Your task to perform on an android device: Open Google Chrome and open the bookmarks view Image 0: 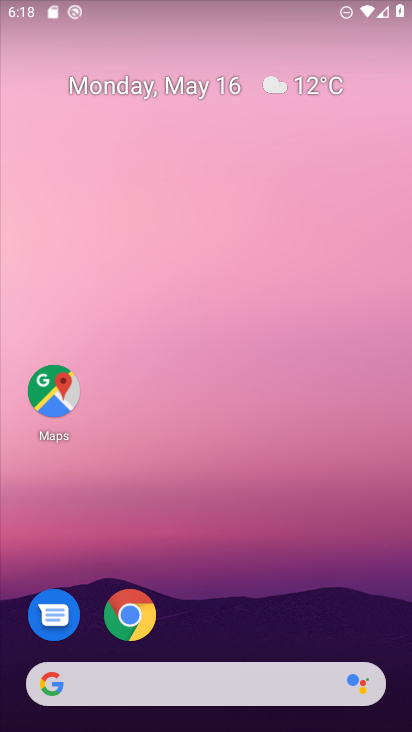
Step 0: click (129, 618)
Your task to perform on an android device: Open Google Chrome and open the bookmarks view Image 1: 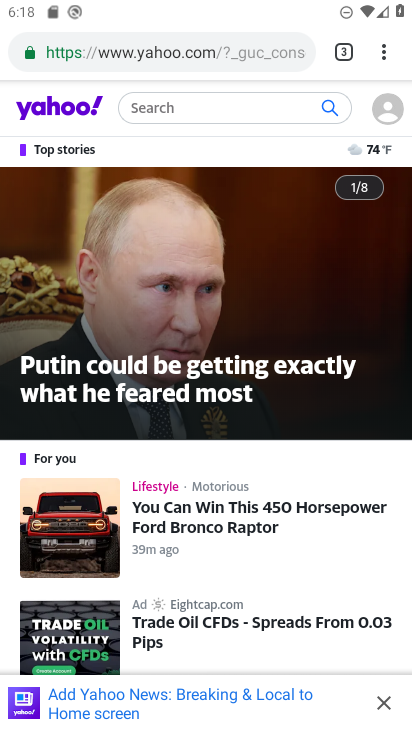
Step 1: click (384, 50)
Your task to perform on an android device: Open Google Chrome and open the bookmarks view Image 2: 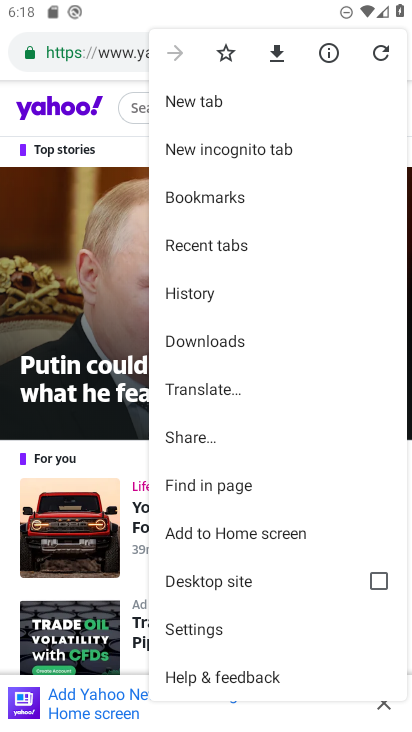
Step 2: click (224, 200)
Your task to perform on an android device: Open Google Chrome and open the bookmarks view Image 3: 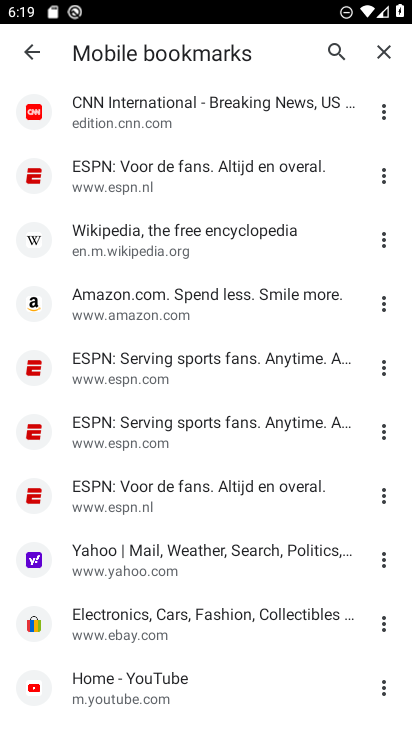
Step 3: task complete